Your task to perform on an android device: Add "macbook pro" to the cart on costco.com, then select checkout. Image 0: 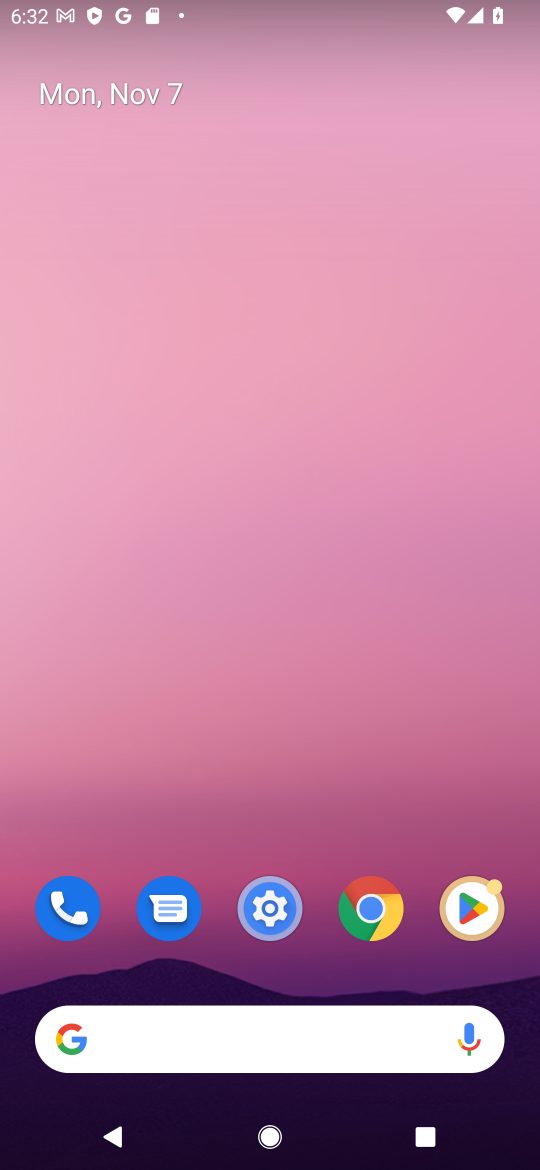
Step 0: task complete